Your task to perform on an android device: turn off airplane mode Image 0: 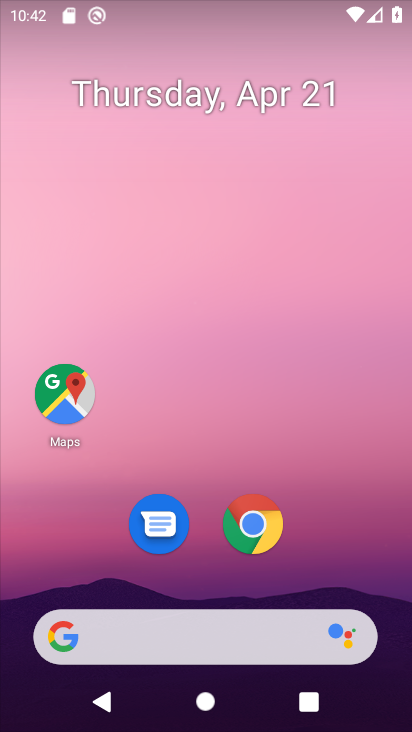
Step 0: drag from (348, 527) to (352, 99)
Your task to perform on an android device: turn off airplane mode Image 1: 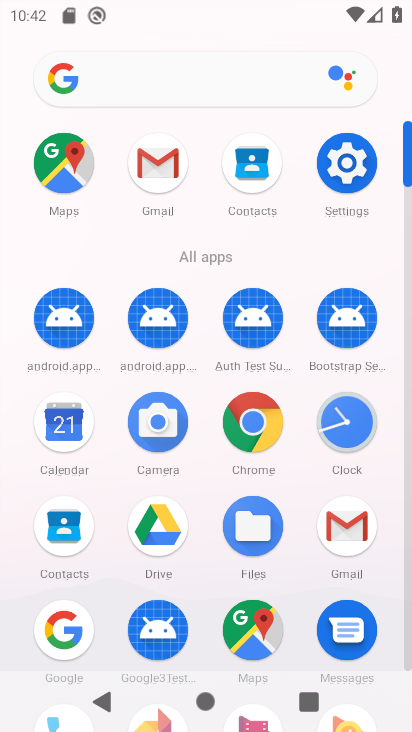
Step 1: click (341, 163)
Your task to perform on an android device: turn off airplane mode Image 2: 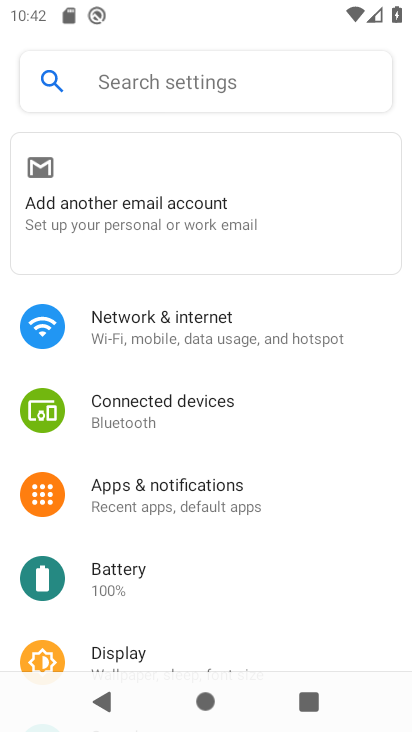
Step 2: click (234, 327)
Your task to perform on an android device: turn off airplane mode Image 3: 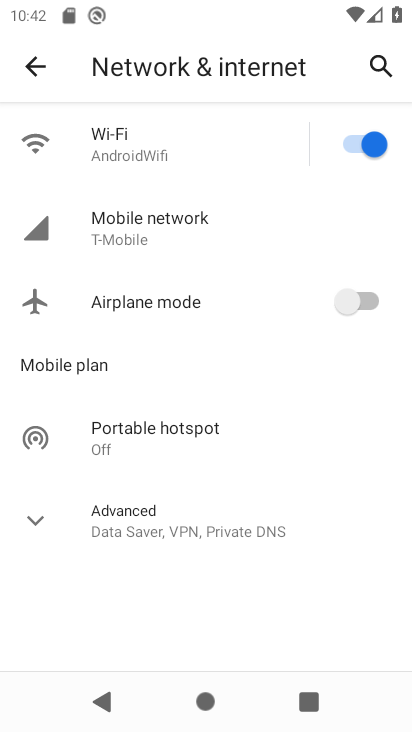
Step 3: task complete